Your task to perform on an android device: toggle pop-ups in chrome Image 0: 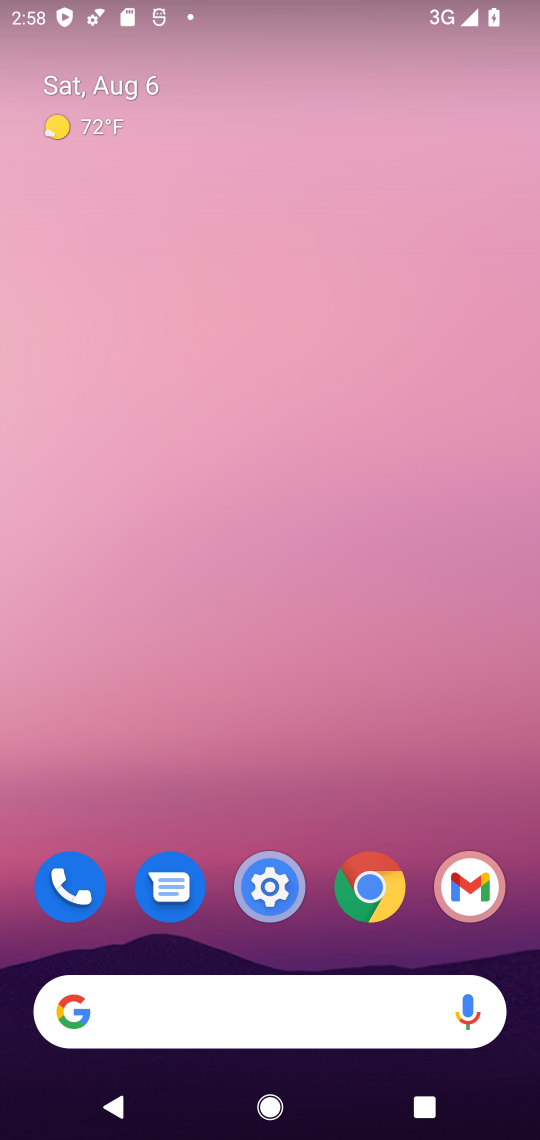
Step 0: press home button
Your task to perform on an android device: toggle pop-ups in chrome Image 1: 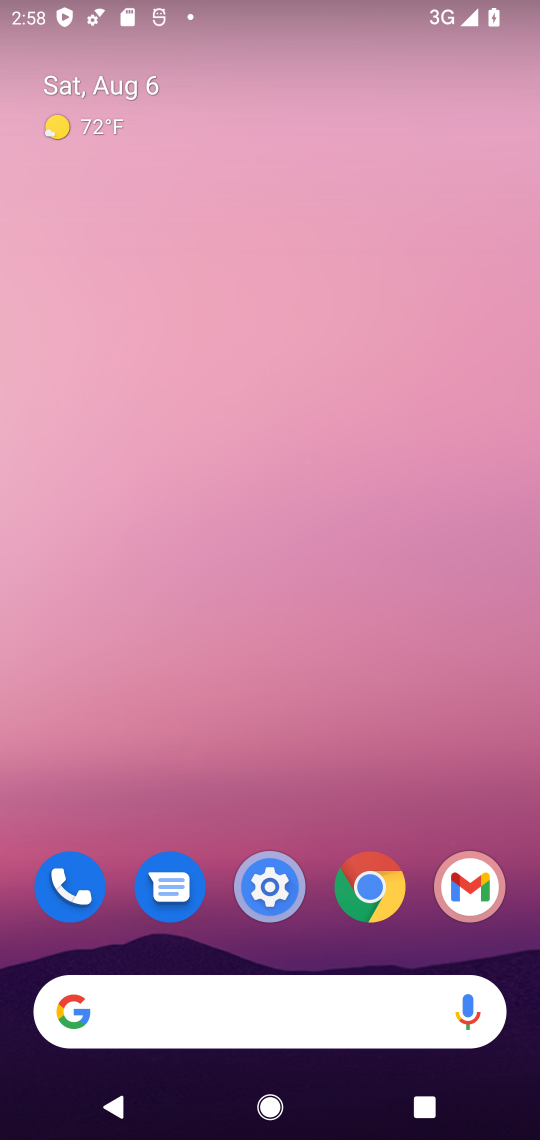
Step 1: drag from (311, 731) to (353, 246)
Your task to perform on an android device: toggle pop-ups in chrome Image 2: 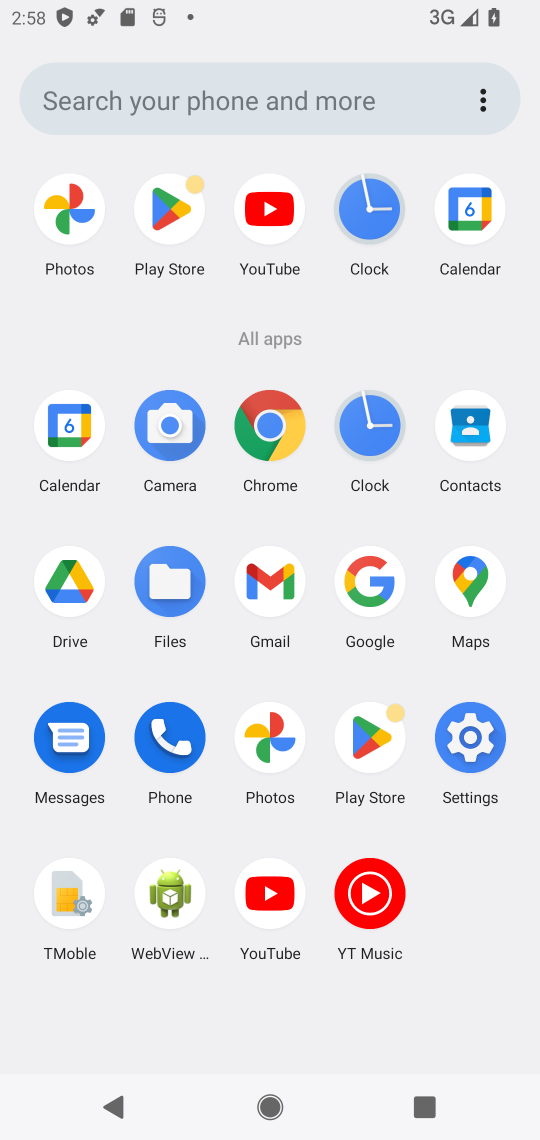
Step 2: click (269, 429)
Your task to perform on an android device: toggle pop-ups in chrome Image 3: 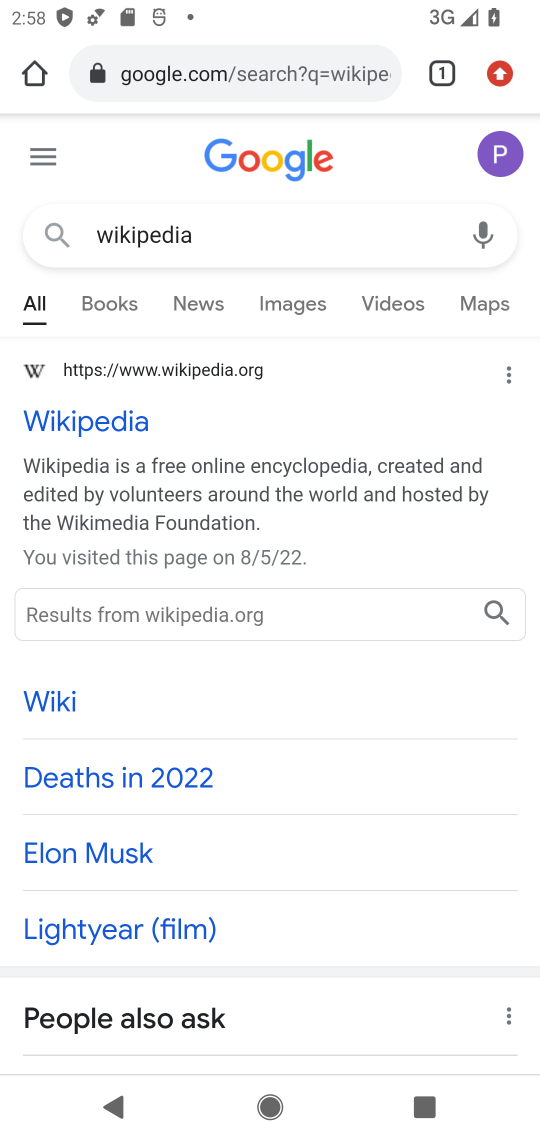
Step 3: click (499, 74)
Your task to perform on an android device: toggle pop-ups in chrome Image 4: 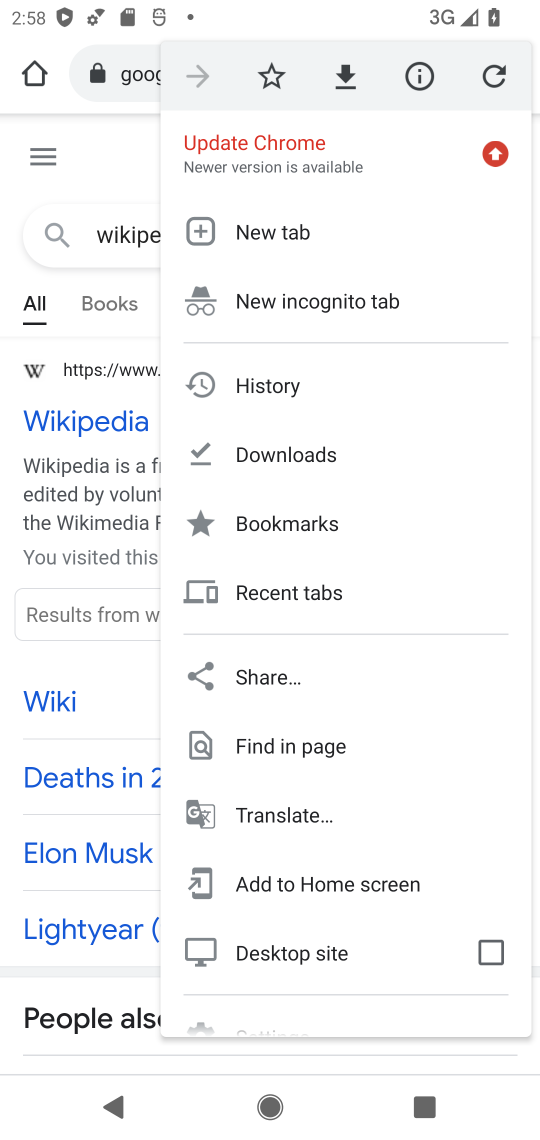
Step 4: drag from (455, 627) to (457, 474)
Your task to perform on an android device: toggle pop-ups in chrome Image 5: 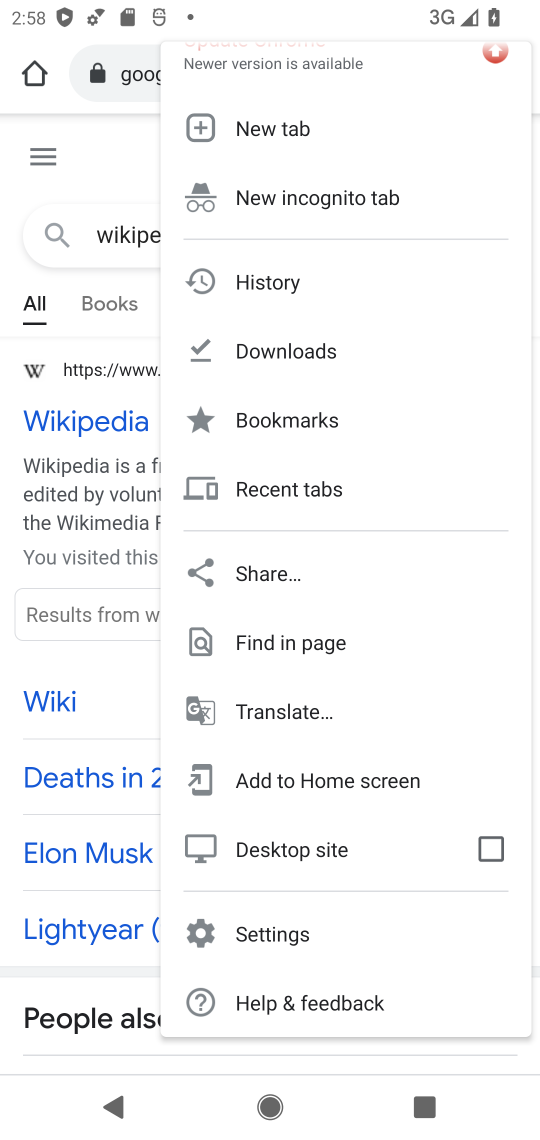
Step 5: drag from (451, 703) to (469, 477)
Your task to perform on an android device: toggle pop-ups in chrome Image 6: 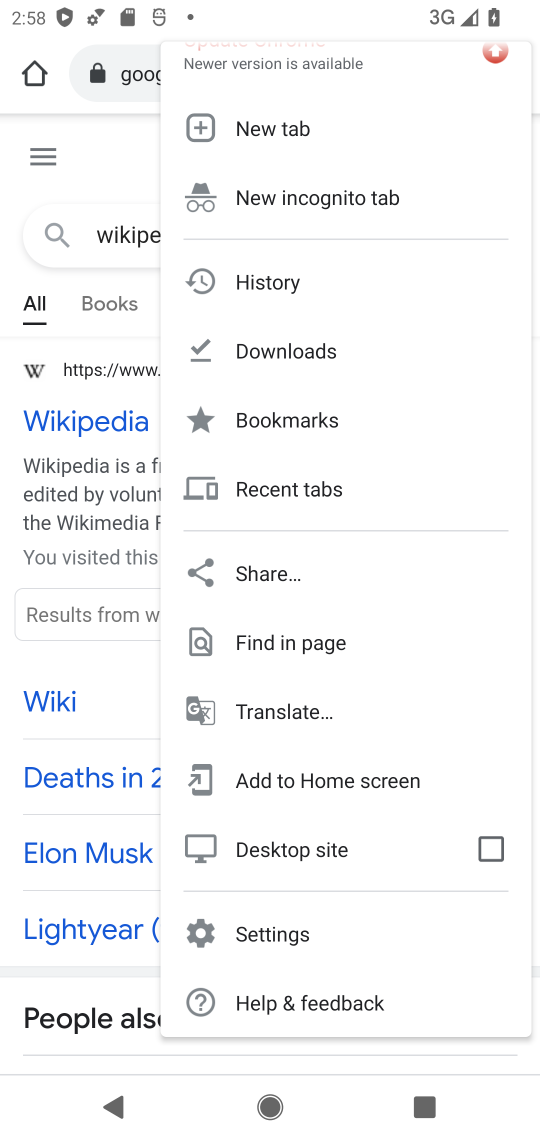
Step 6: click (289, 942)
Your task to perform on an android device: toggle pop-ups in chrome Image 7: 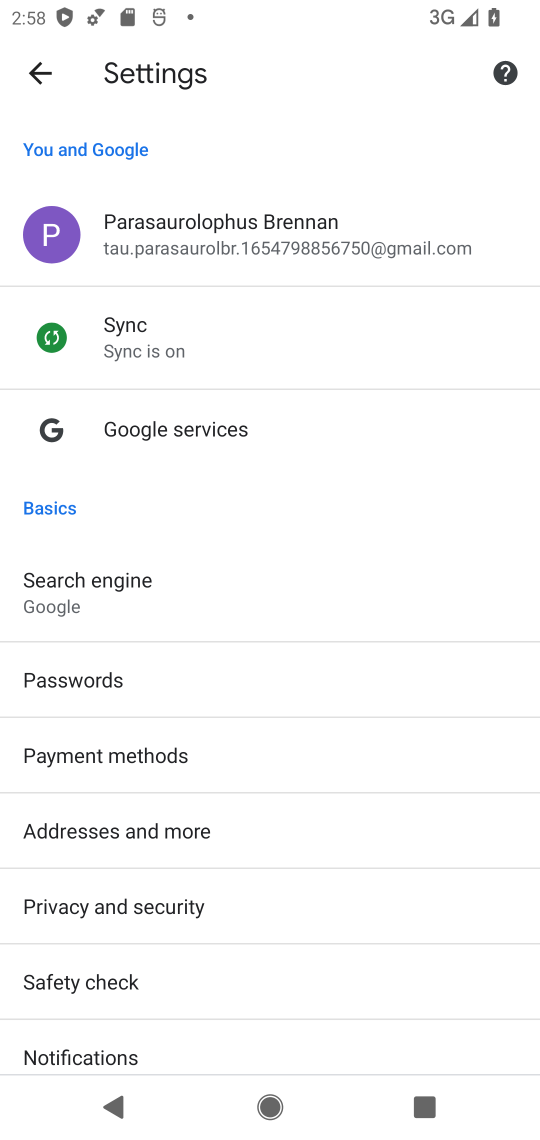
Step 7: drag from (373, 882) to (378, 696)
Your task to perform on an android device: toggle pop-ups in chrome Image 8: 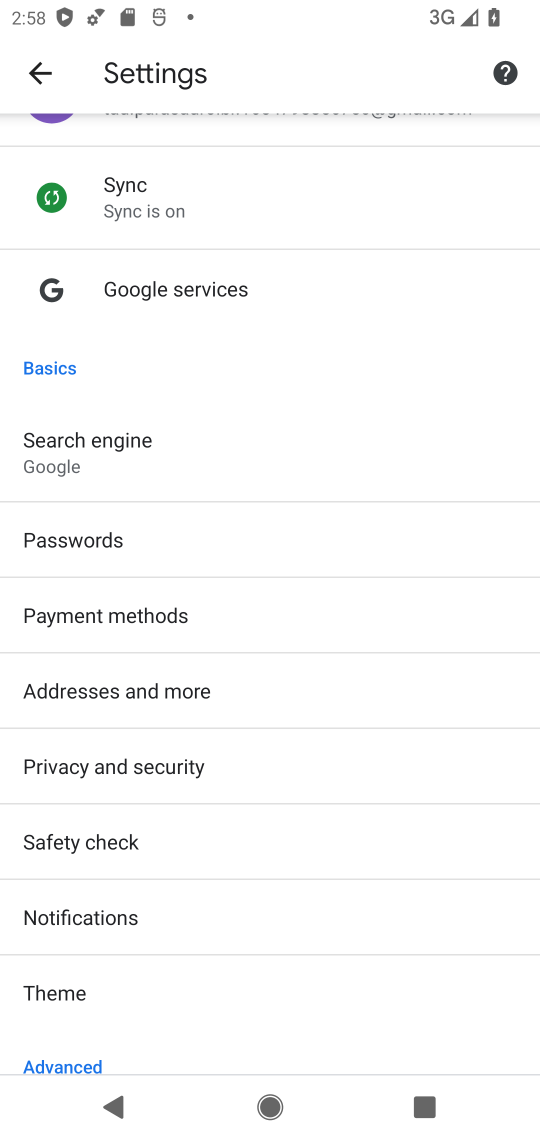
Step 8: drag from (370, 850) to (370, 668)
Your task to perform on an android device: toggle pop-ups in chrome Image 9: 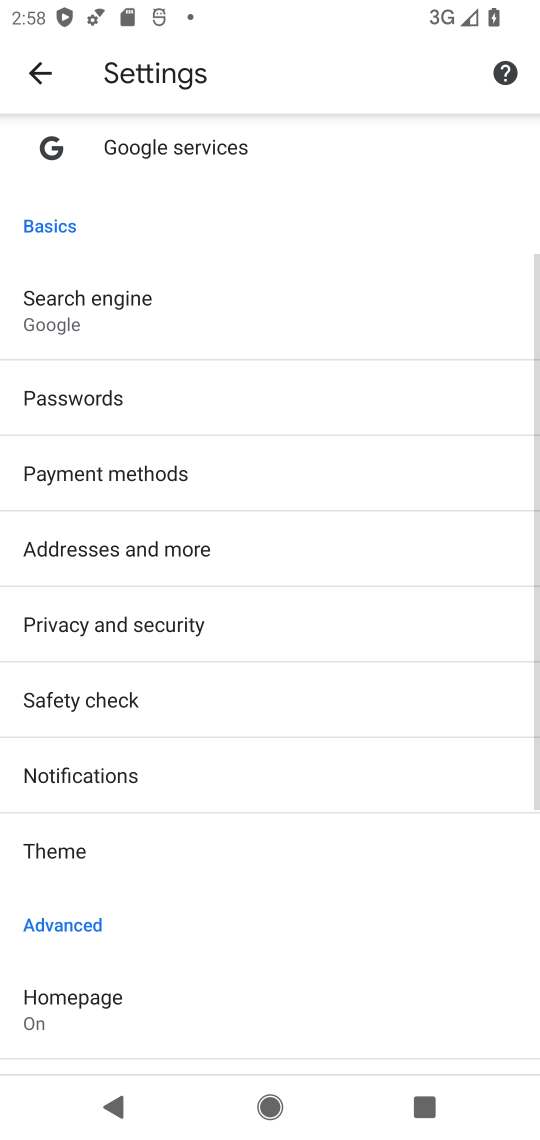
Step 9: drag from (343, 785) to (356, 631)
Your task to perform on an android device: toggle pop-ups in chrome Image 10: 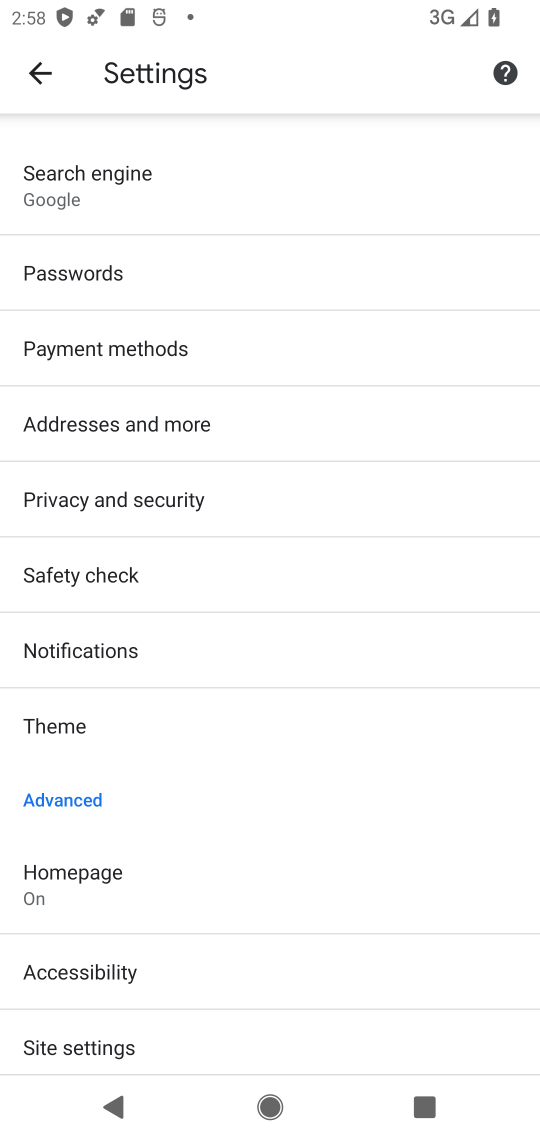
Step 10: drag from (337, 798) to (373, 539)
Your task to perform on an android device: toggle pop-ups in chrome Image 11: 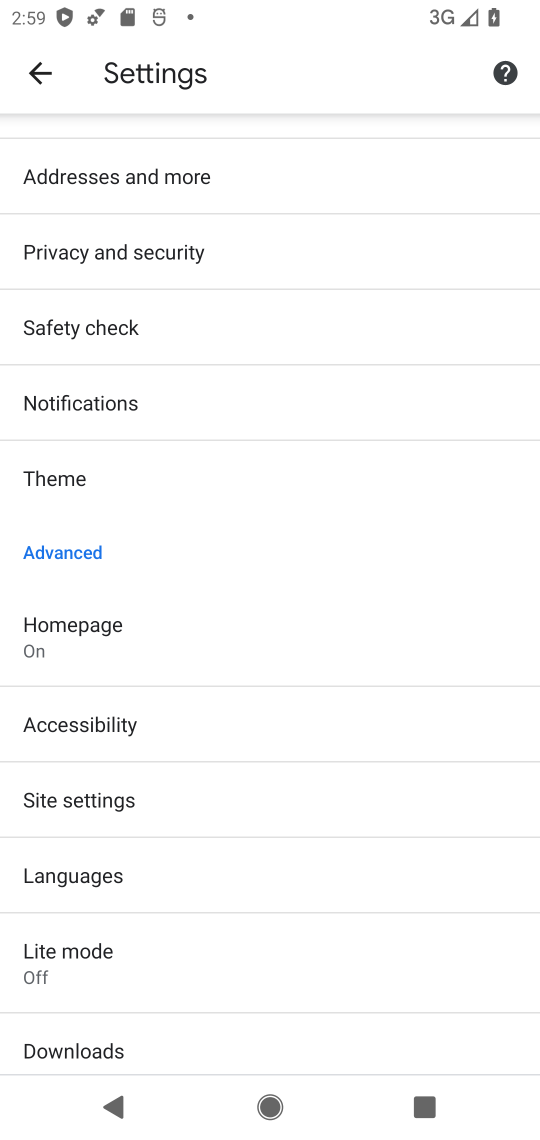
Step 11: drag from (317, 789) to (352, 570)
Your task to perform on an android device: toggle pop-ups in chrome Image 12: 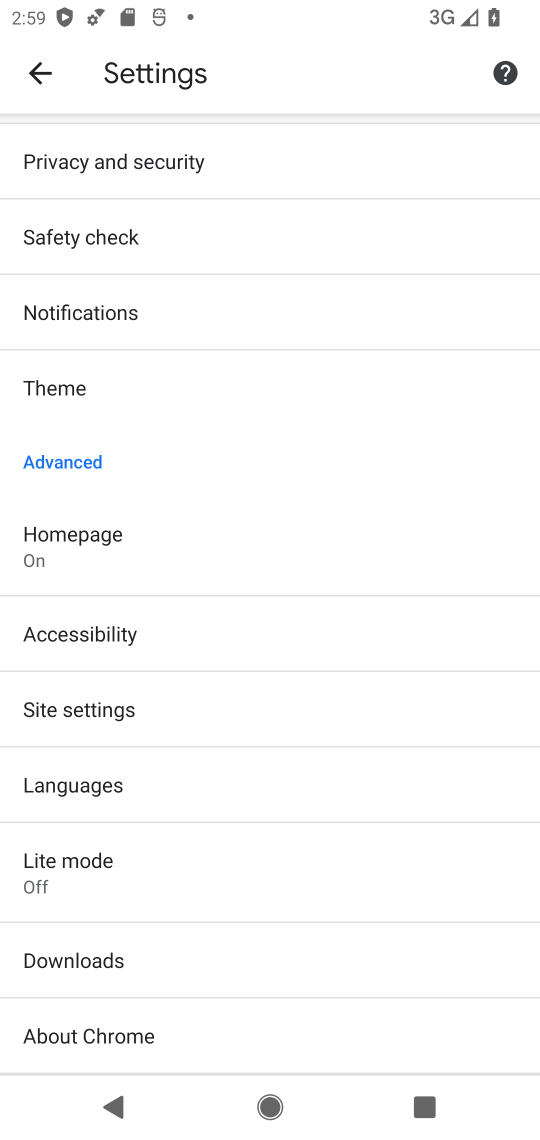
Step 12: click (327, 719)
Your task to perform on an android device: toggle pop-ups in chrome Image 13: 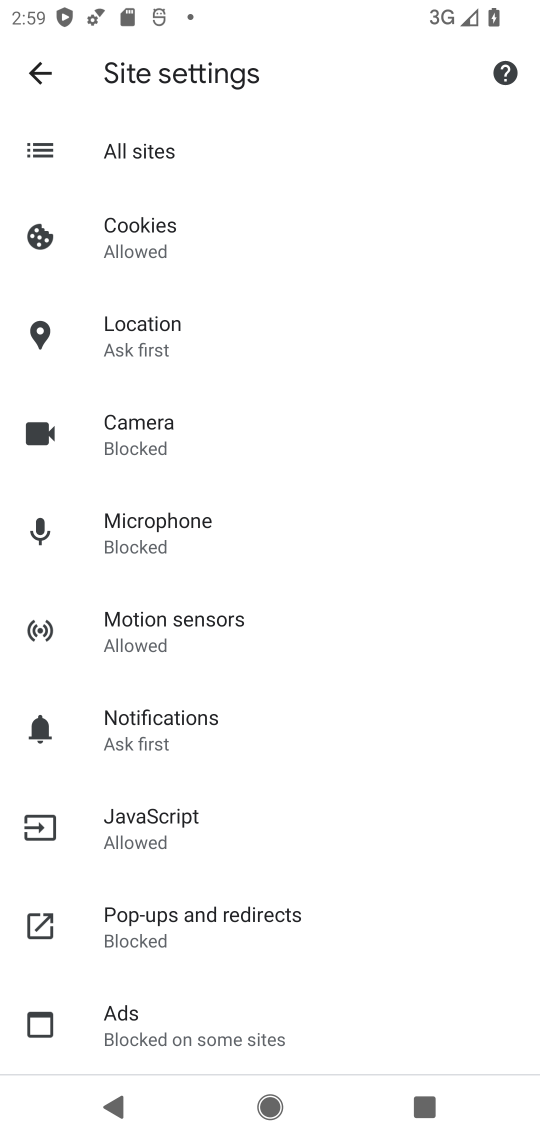
Step 13: drag from (352, 751) to (353, 571)
Your task to perform on an android device: toggle pop-ups in chrome Image 14: 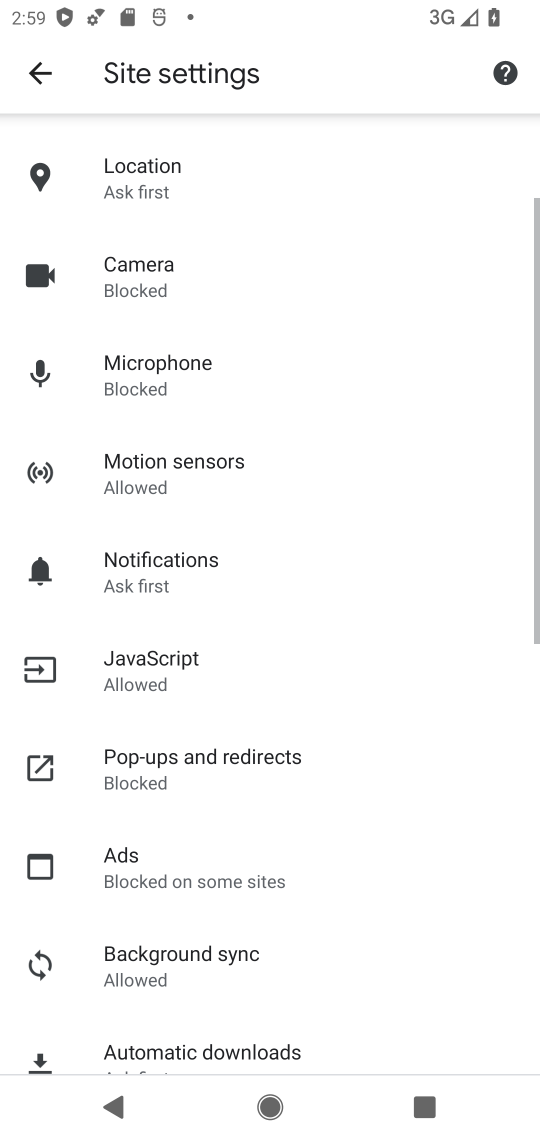
Step 14: drag from (369, 778) to (372, 573)
Your task to perform on an android device: toggle pop-ups in chrome Image 15: 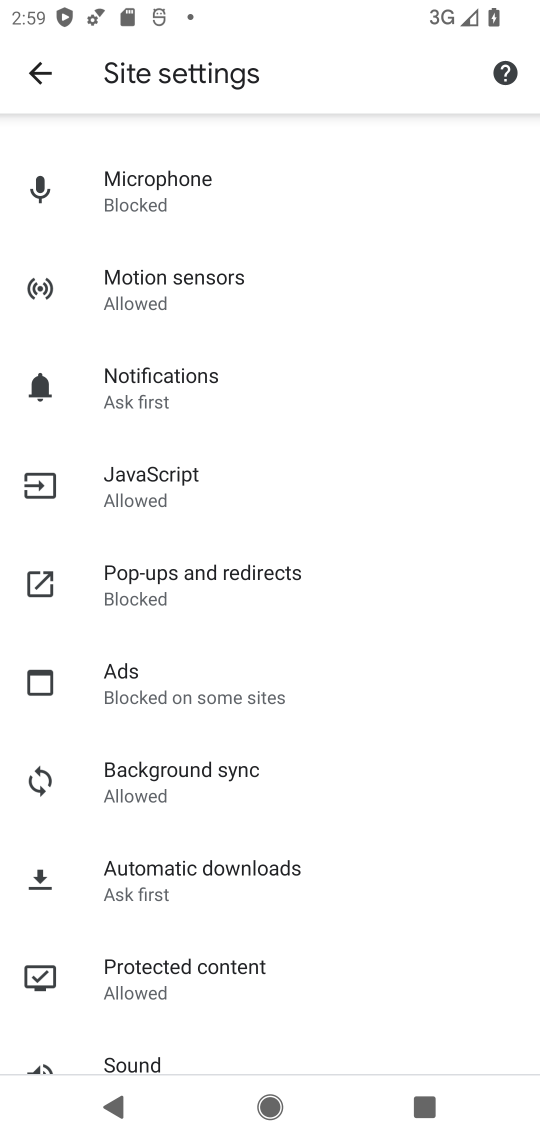
Step 15: drag from (374, 689) to (377, 498)
Your task to perform on an android device: toggle pop-ups in chrome Image 16: 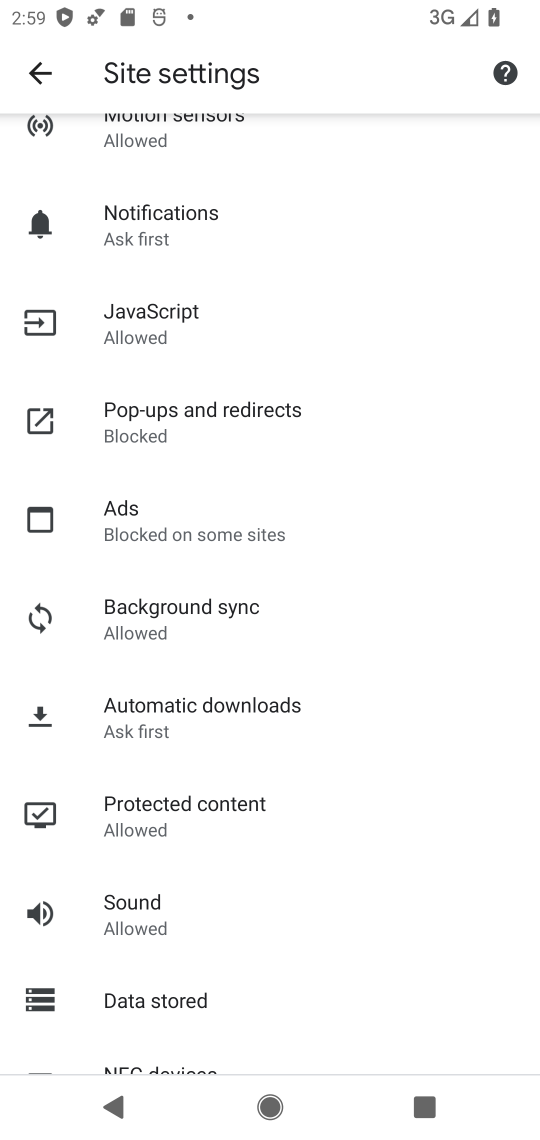
Step 16: click (331, 448)
Your task to perform on an android device: toggle pop-ups in chrome Image 17: 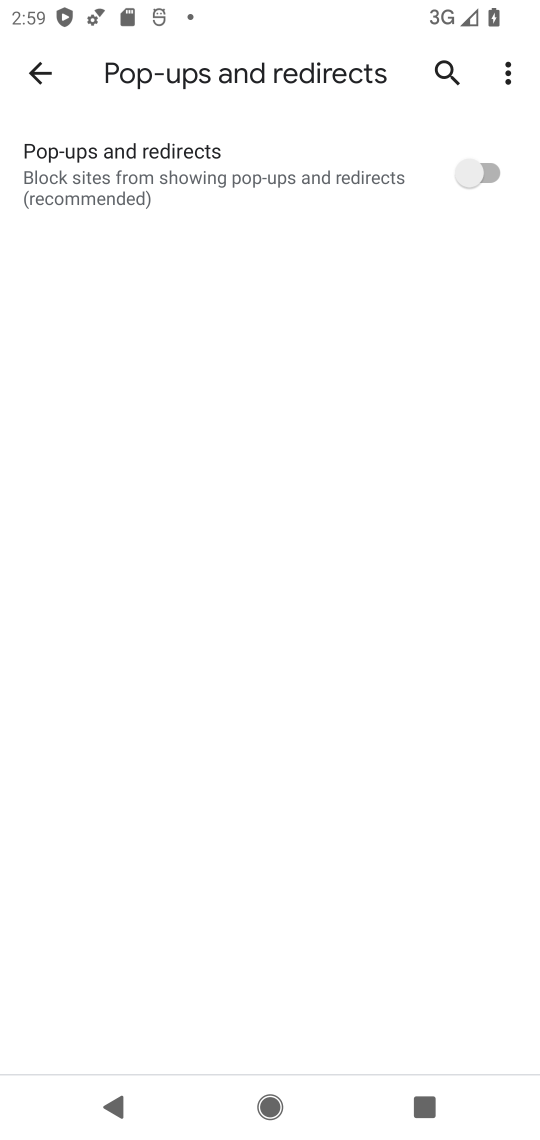
Step 17: click (469, 164)
Your task to perform on an android device: toggle pop-ups in chrome Image 18: 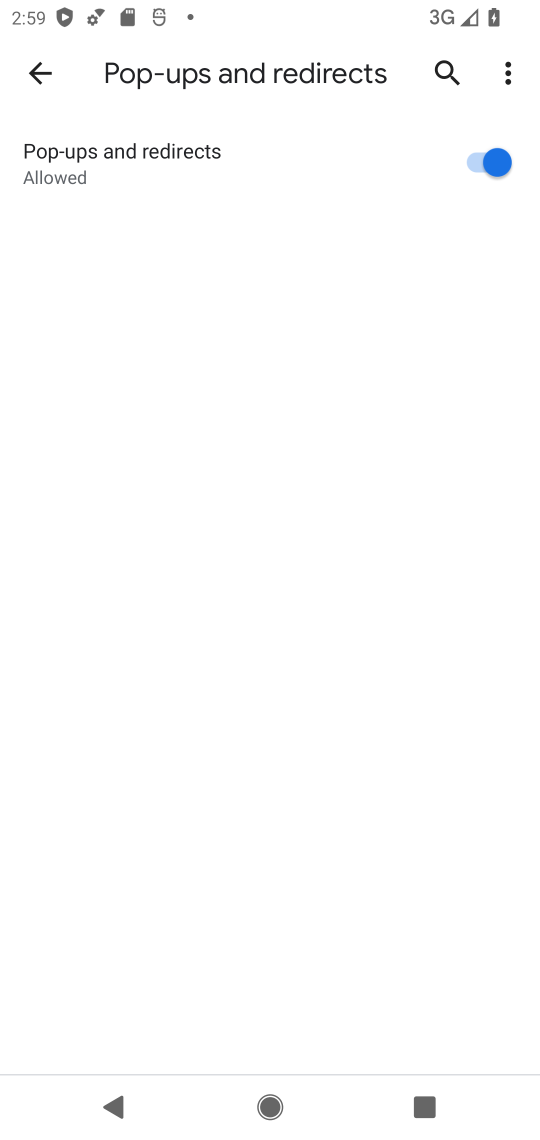
Step 18: task complete